Your task to perform on an android device: Search for Mexican restaurants on Maps Image 0: 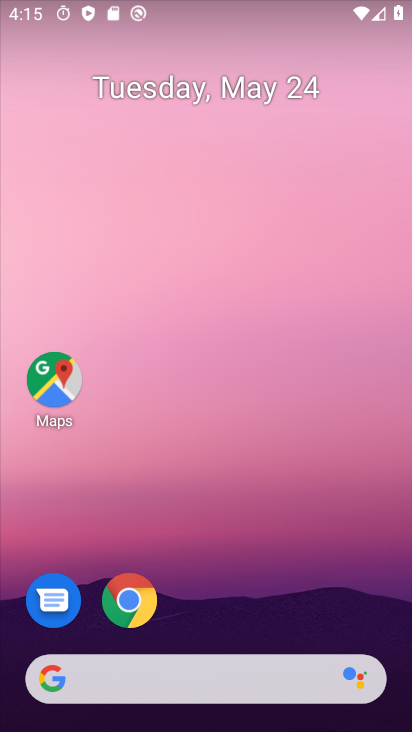
Step 0: click (52, 379)
Your task to perform on an android device: Search for Mexican restaurants on Maps Image 1: 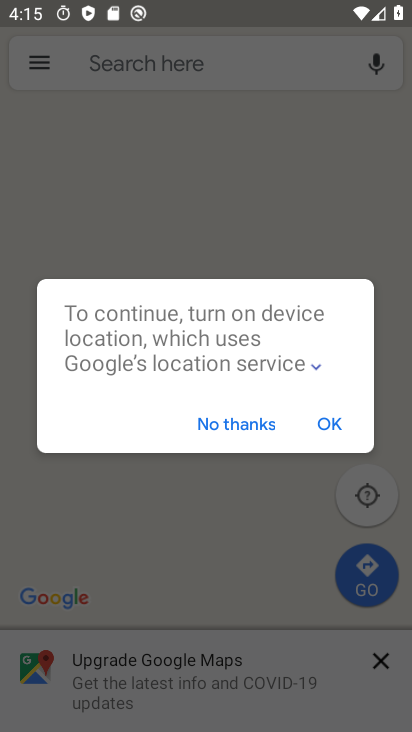
Step 1: click (103, 66)
Your task to perform on an android device: Search for Mexican restaurants on Maps Image 2: 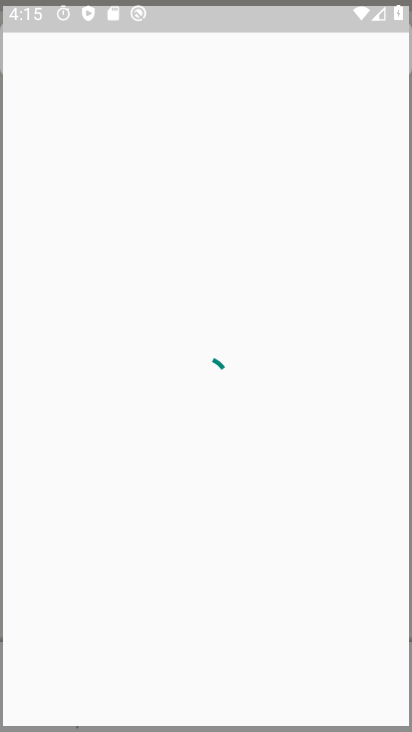
Step 2: click (222, 431)
Your task to perform on an android device: Search for Mexican restaurants on Maps Image 3: 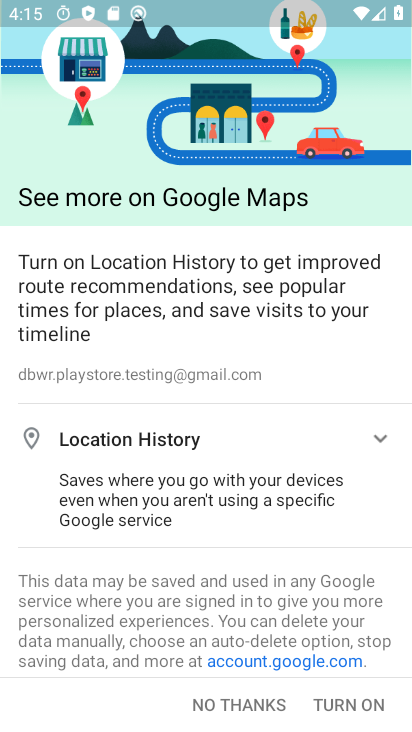
Step 3: click (217, 698)
Your task to perform on an android device: Search for Mexican restaurants on Maps Image 4: 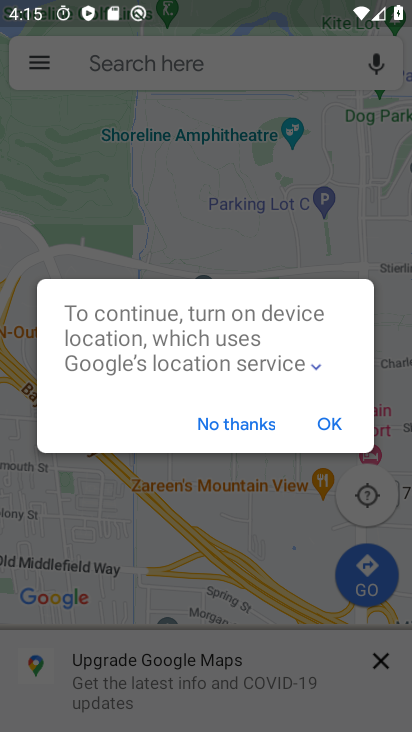
Step 4: click (215, 422)
Your task to perform on an android device: Search for Mexican restaurants on Maps Image 5: 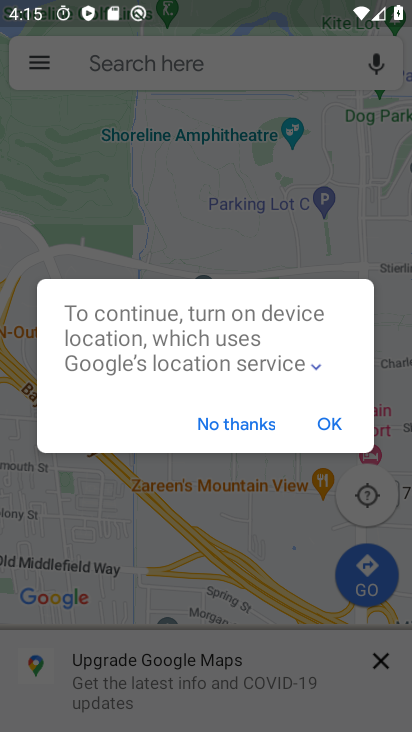
Step 5: click (226, 423)
Your task to perform on an android device: Search for Mexican restaurants on Maps Image 6: 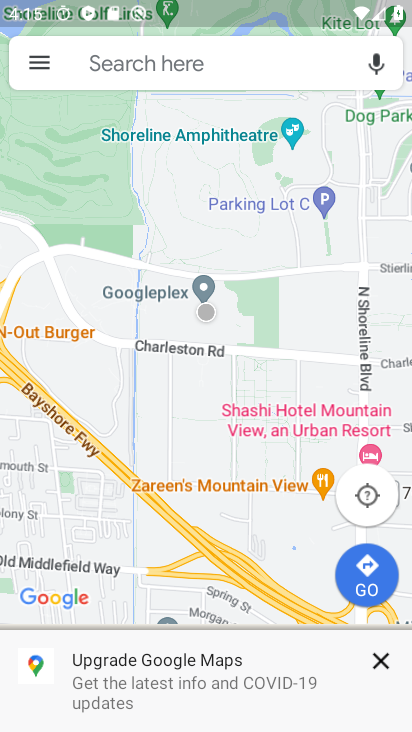
Step 6: click (86, 63)
Your task to perform on an android device: Search for Mexican restaurants on Maps Image 7: 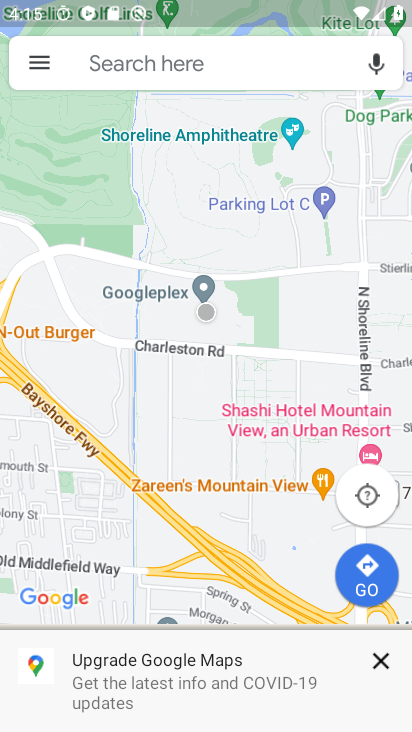
Step 7: click (95, 64)
Your task to perform on an android device: Search for Mexican restaurants on Maps Image 8: 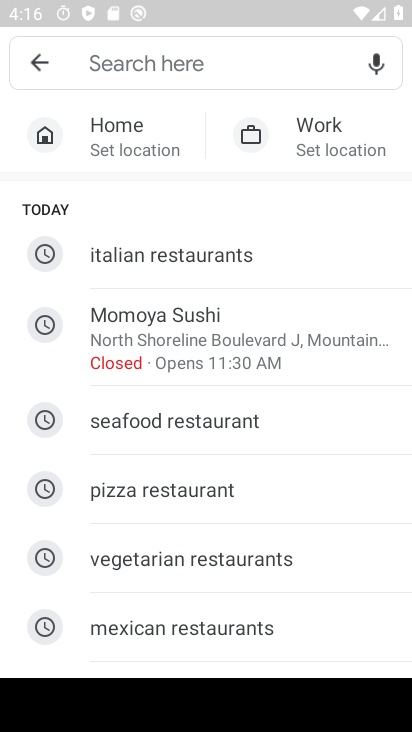
Step 8: type "mexican restaurants"
Your task to perform on an android device: Search for Mexican restaurants on Maps Image 9: 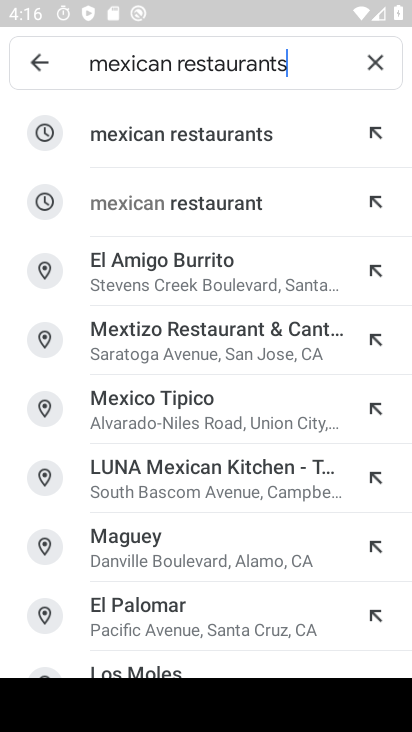
Step 9: click (138, 135)
Your task to perform on an android device: Search for Mexican restaurants on Maps Image 10: 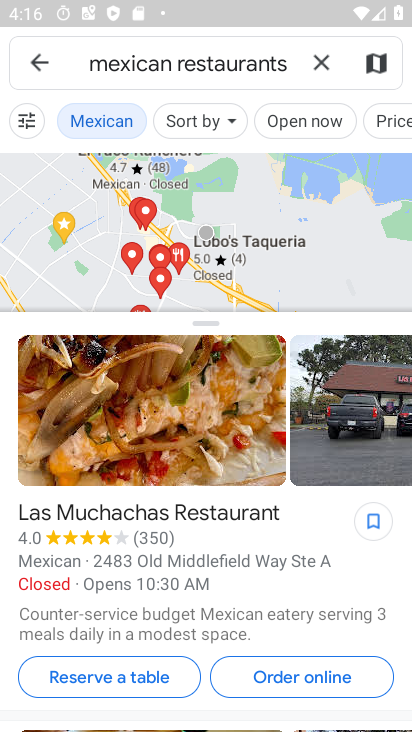
Step 10: task complete